Your task to perform on an android device: Open the map Image 0: 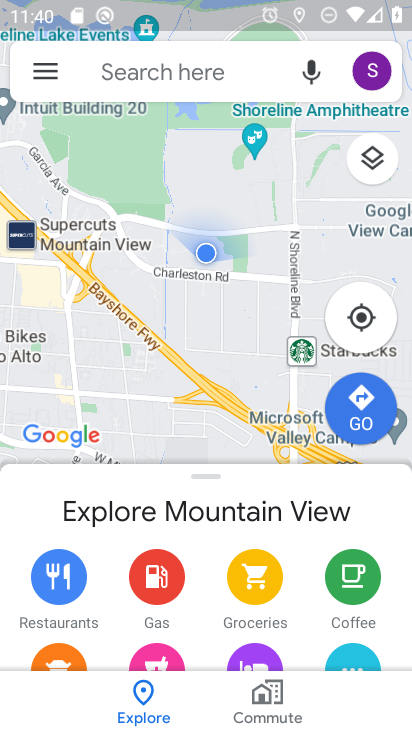
Step 0: press home button
Your task to perform on an android device: Open the map Image 1: 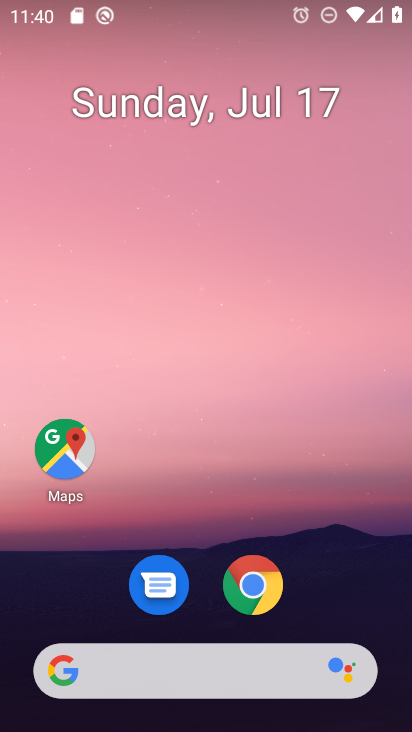
Step 1: click (53, 441)
Your task to perform on an android device: Open the map Image 2: 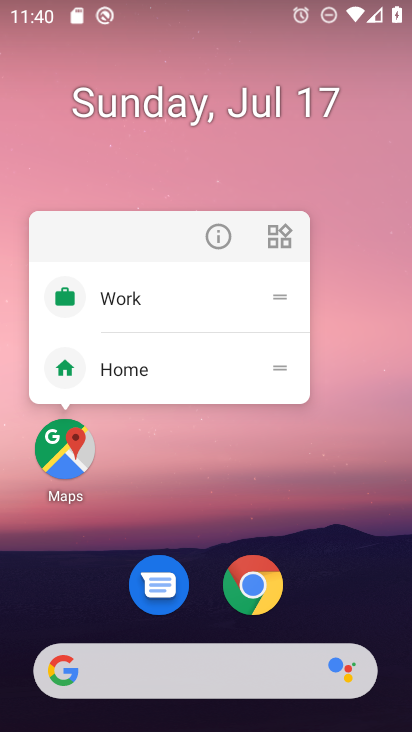
Step 2: click (53, 441)
Your task to perform on an android device: Open the map Image 3: 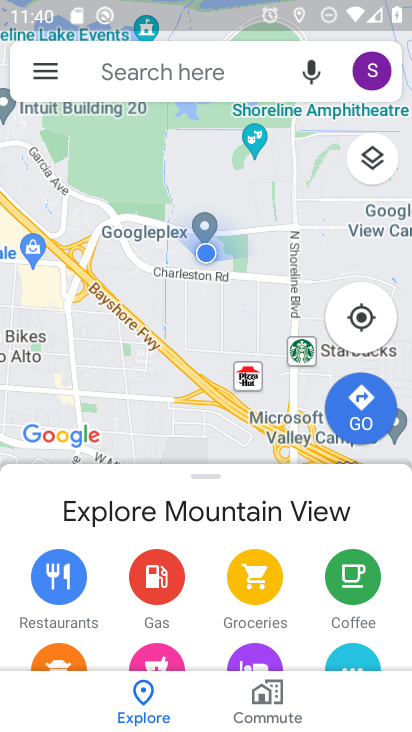
Step 3: task complete